Your task to perform on an android device: Clear the shopping cart on costco.com. Add logitech g502 to the cart on costco.com, then select checkout. Image 0: 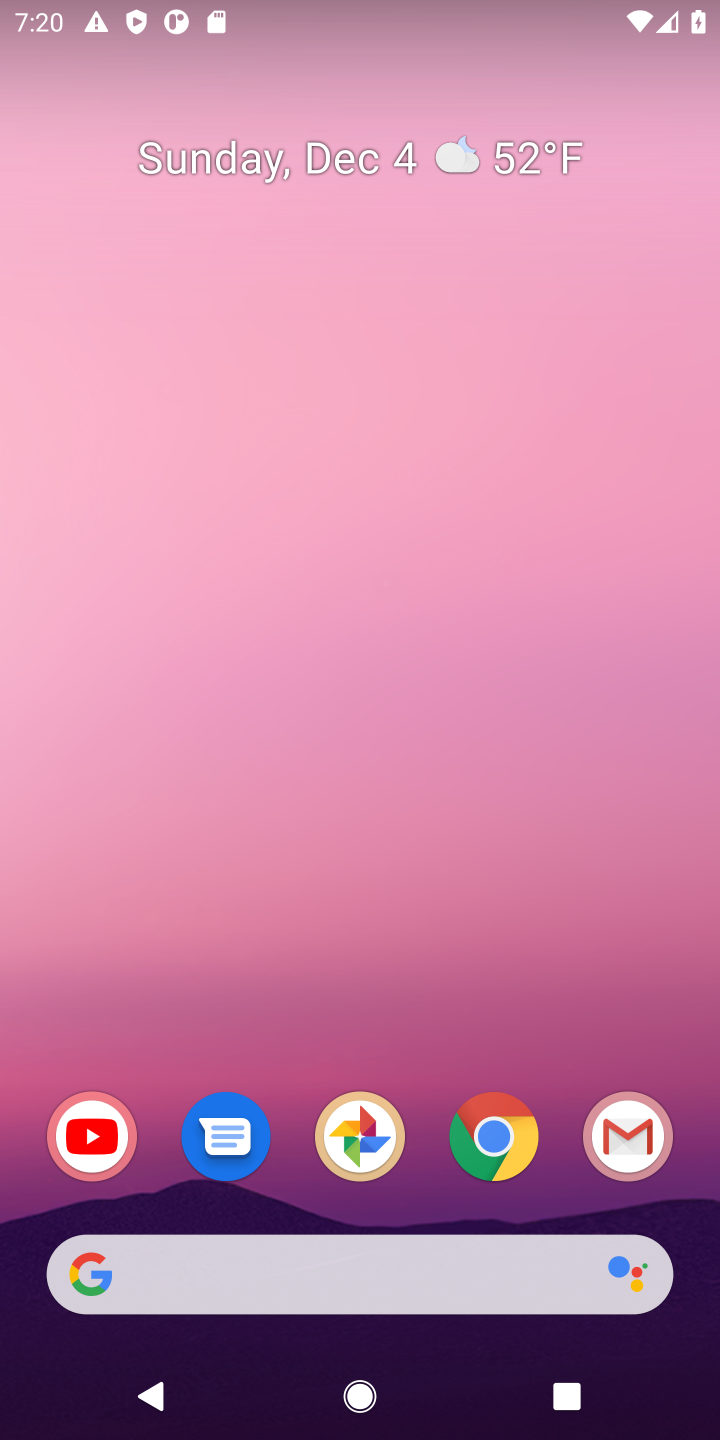
Step 0: click (493, 1155)
Your task to perform on an android device: Clear the shopping cart on costco.com. Add logitech g502 to the cart on costco.com, then select checkout. Image 1: 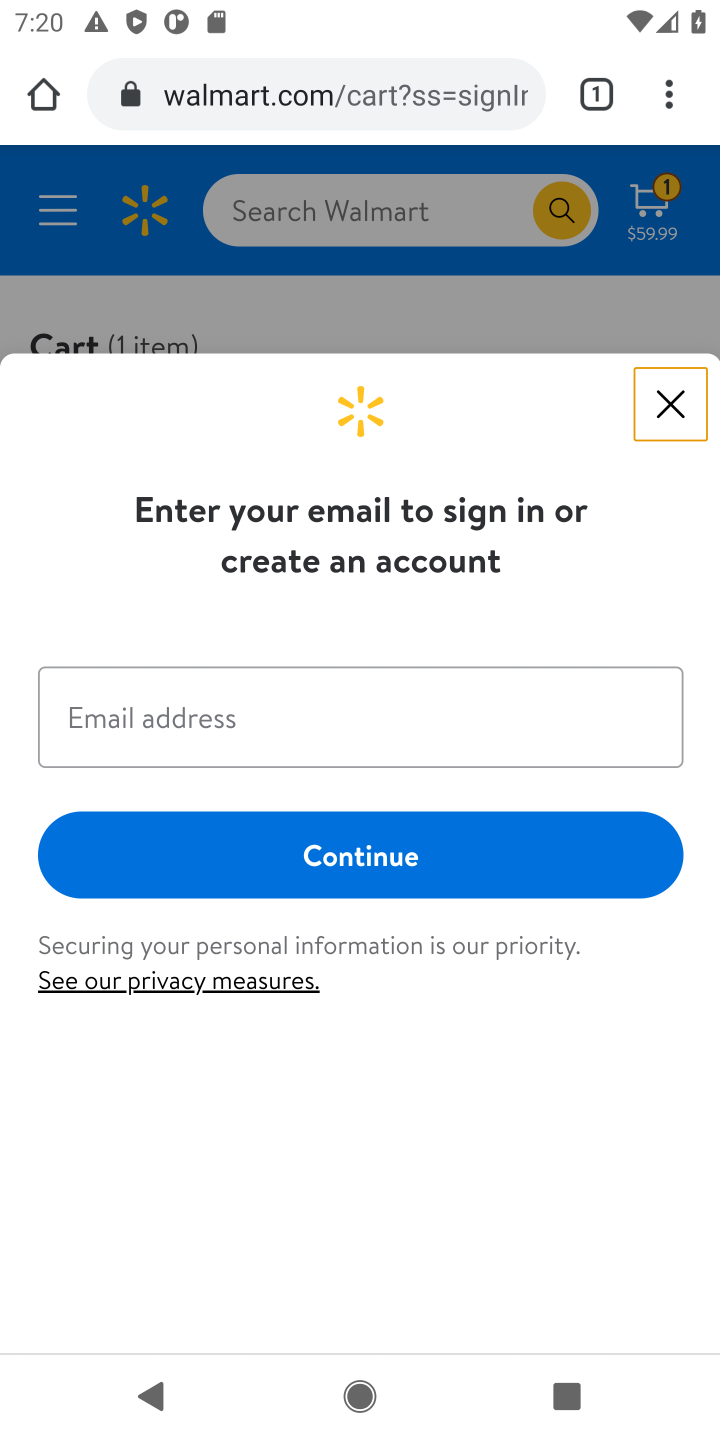
Step 1: click (295, 87)
Your task to perform on an android device: Clear the shopping cart on costco.com. Add logitech g502 to the cart on costco.com, then select checkout. Image 2: 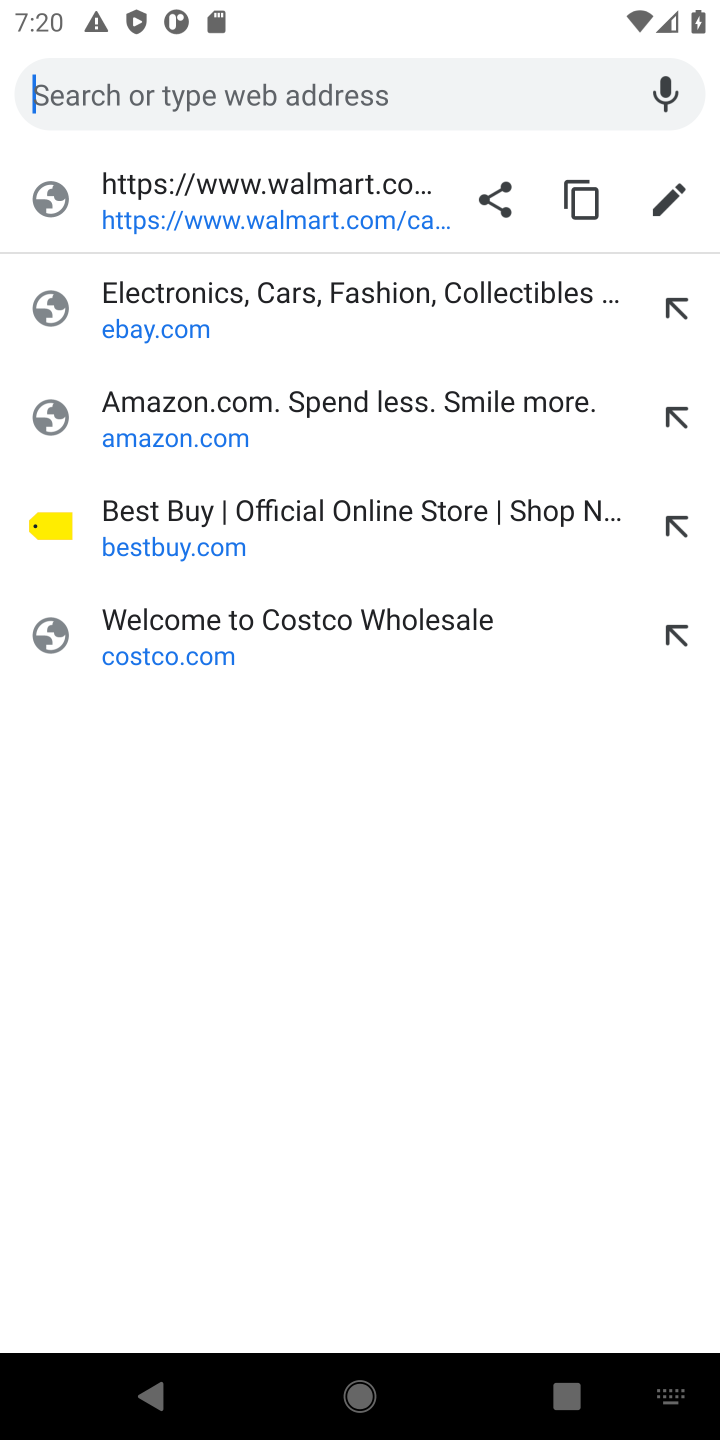
Step 2: click (159, 650)
Your task to perform on an android device: Clear the shopping cart on costco.com. Add logitech g502 to the cart on costco.com, then select checkout. Image 3: 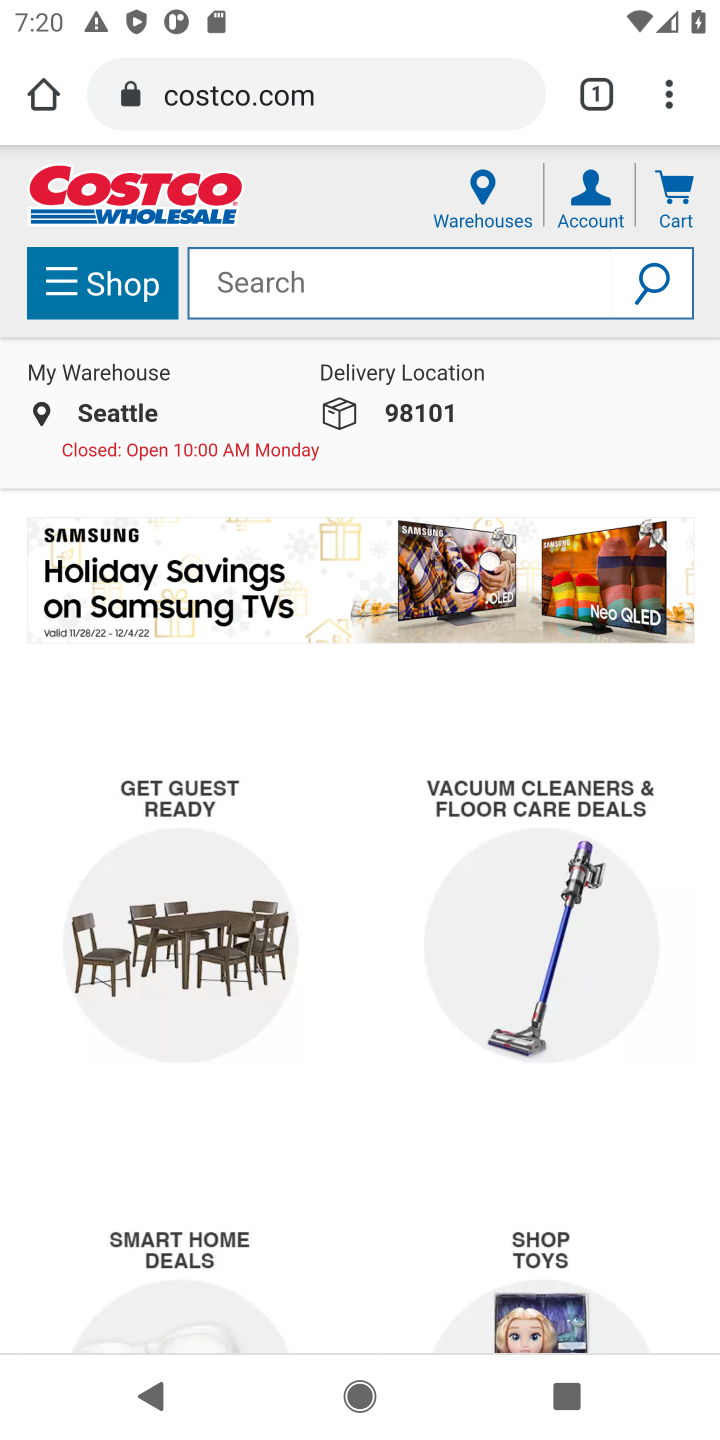
Step 3: click (672, 188)
Your task to perform on an android device: Clear the shopping cart on costco.com. Add logitech g502 to the cart on costco.com, then select checkout. Image 4: 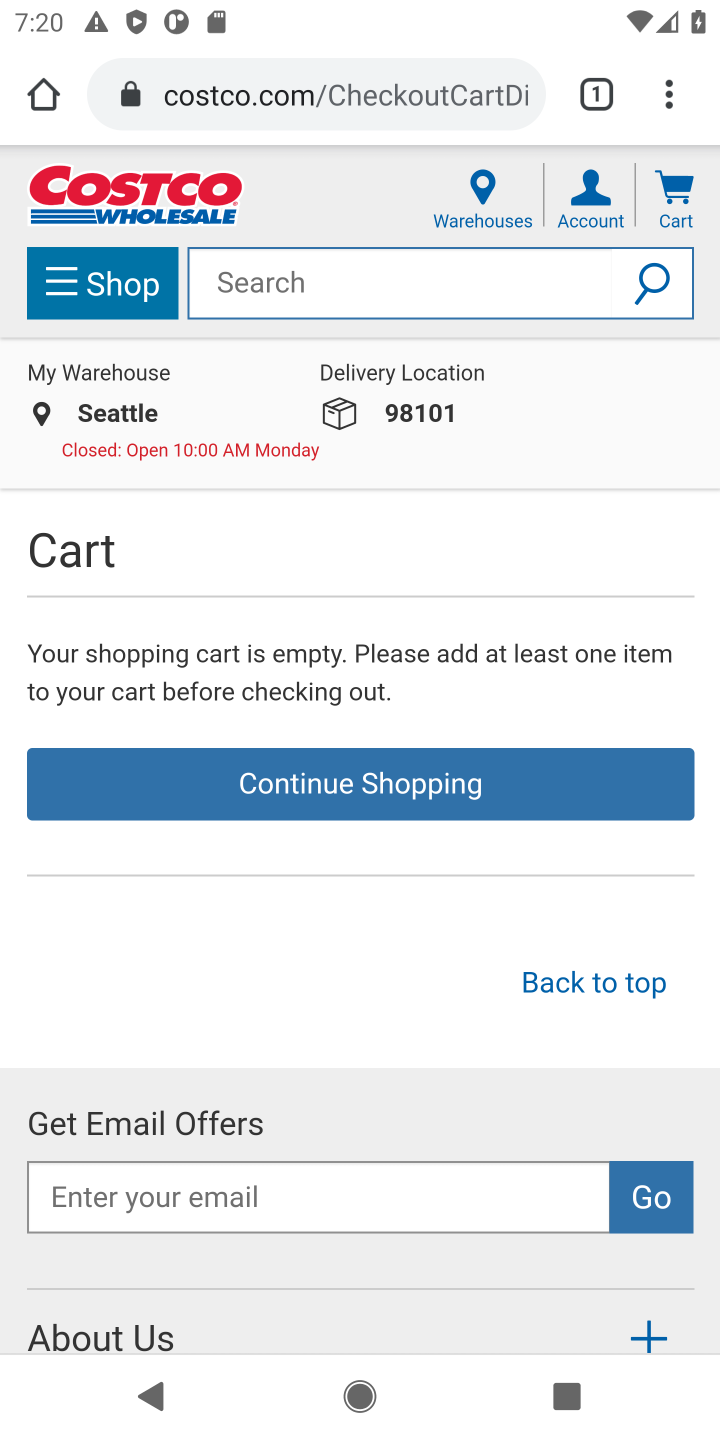
Step 4: click (288, 271)
Your task to perform on an android device: Clear the shopping cart on costco.com. Add logitech g502 to the cart on costco.com, then select checkout. Image 5: 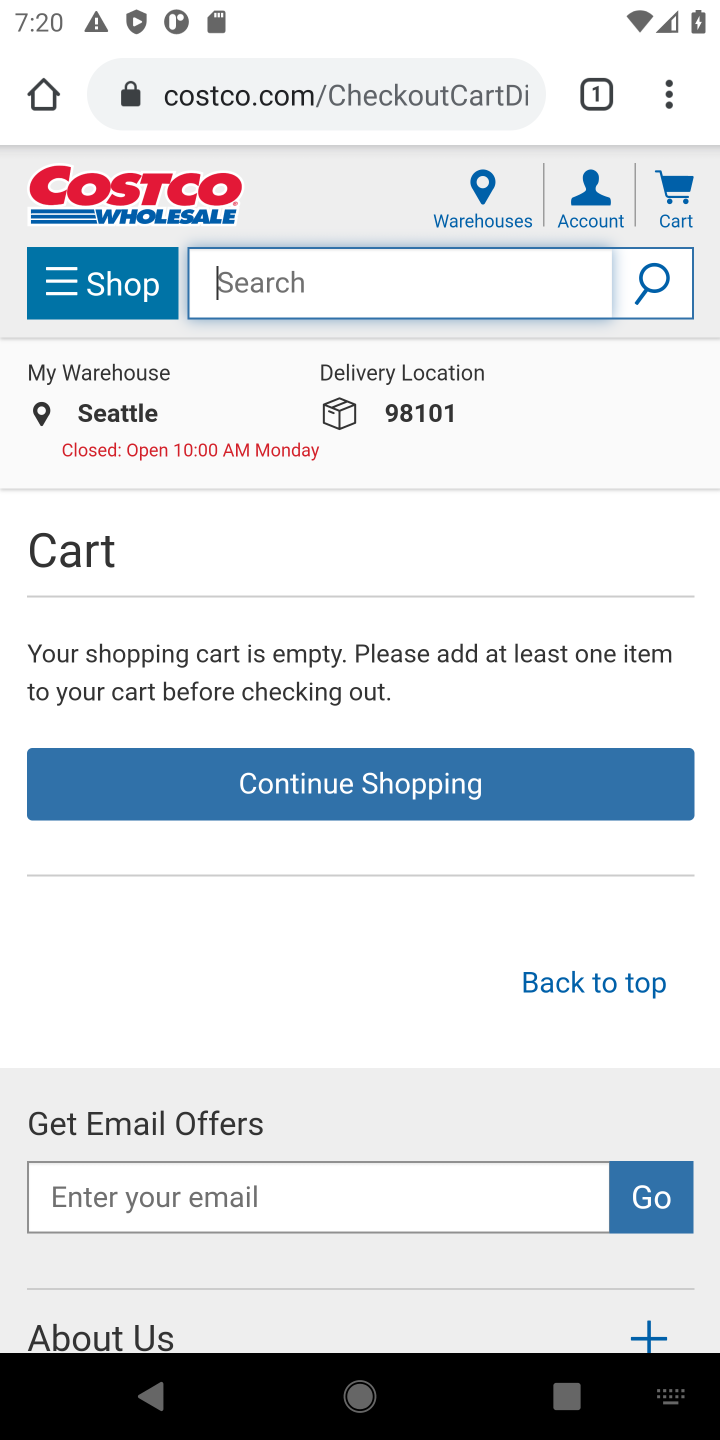
Step 5: type "logitech g502"
Your task to perform on an android device: Clear the shopping cart on costco.com. Add logitech g502 to the cart on costco.com, then select checkout. Image 6: 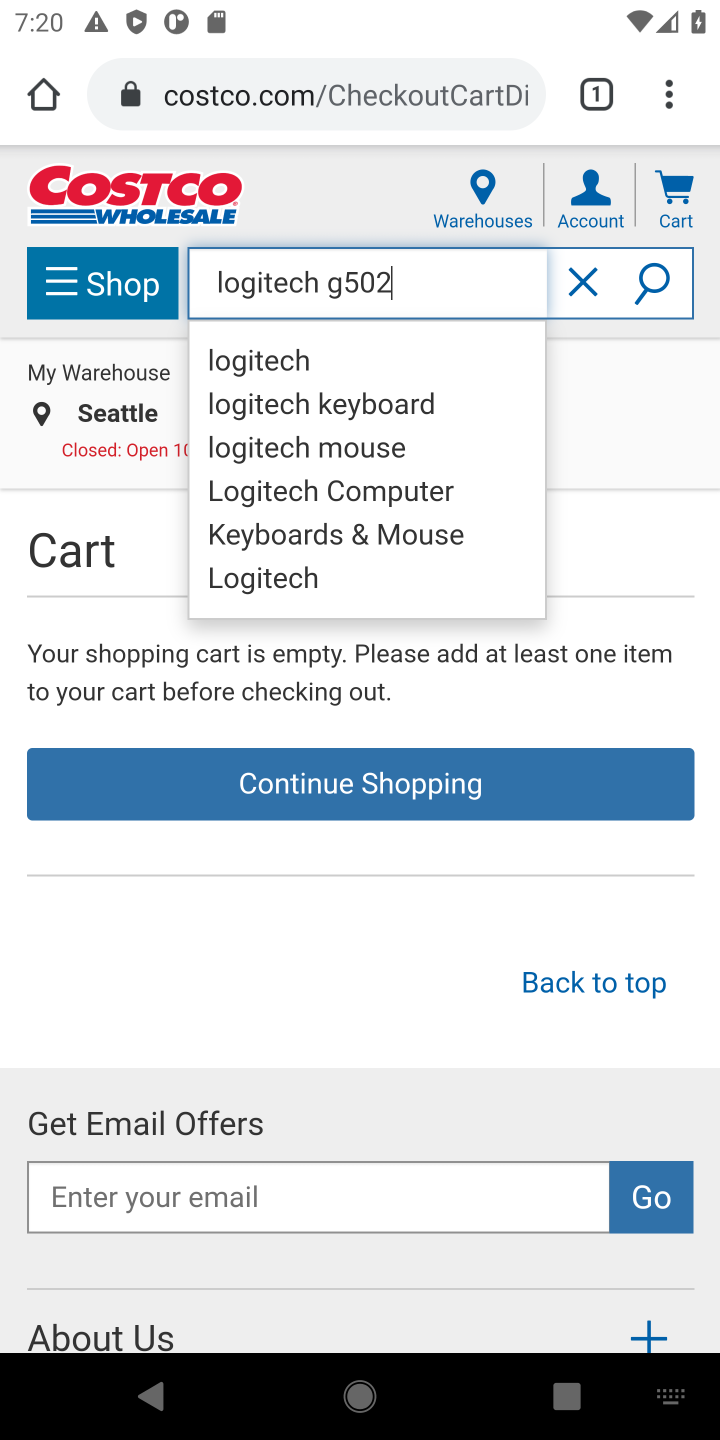
Step 6: click (644, 300)
Your task to perform on an android device: Clear the shopping cart on costco.com. Add logitech g502 to the cart on costco.com, then select checkout. Image 7: 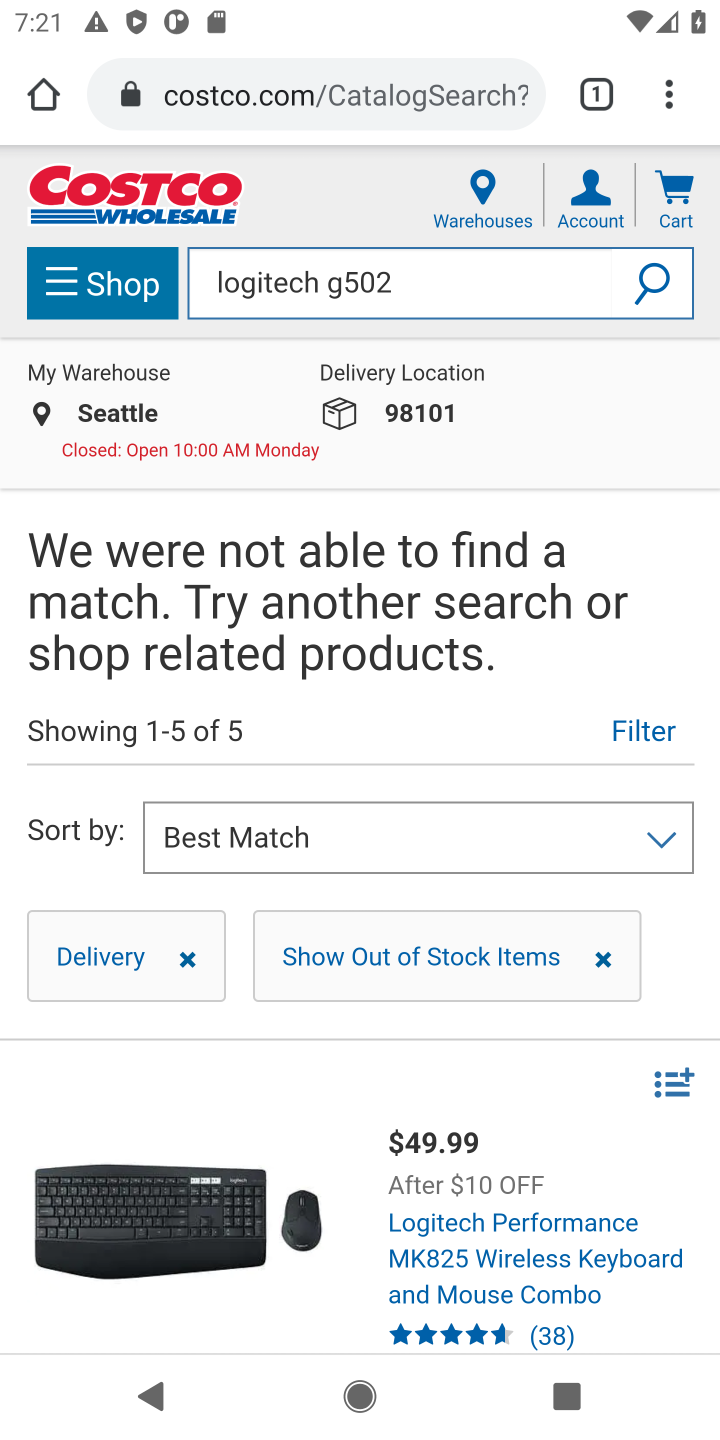
Step 7: task complete